Your task to perform on an android device: Open Youtube and go to "Your channel" Image 0: 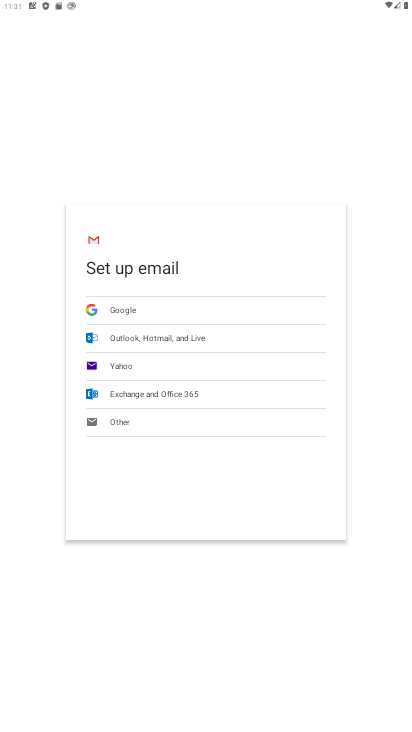
Step 0: press home button
Your task to perform on an android device: Open Youtube and go to "Your channel" Image 1: 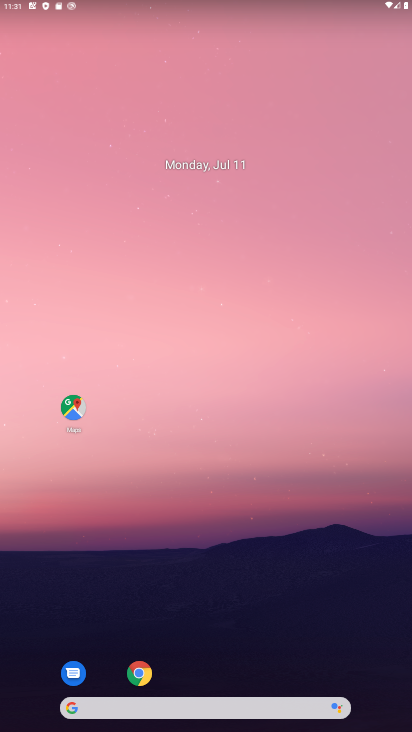
Step 1: drag from (225, 635) to (293, 29)
Your task to perform on an android device: Open Youtube and go to "Your channel" Image 2: 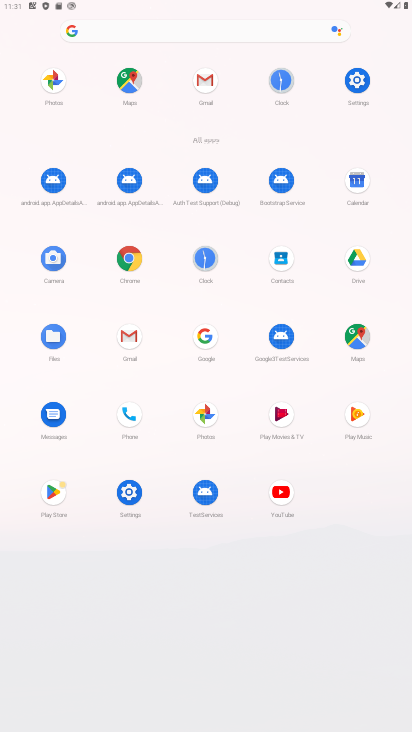
Step 2: click (276, 497)
Your task to perform on an android device: Open Youtube and go to "Your channel" Image 3: 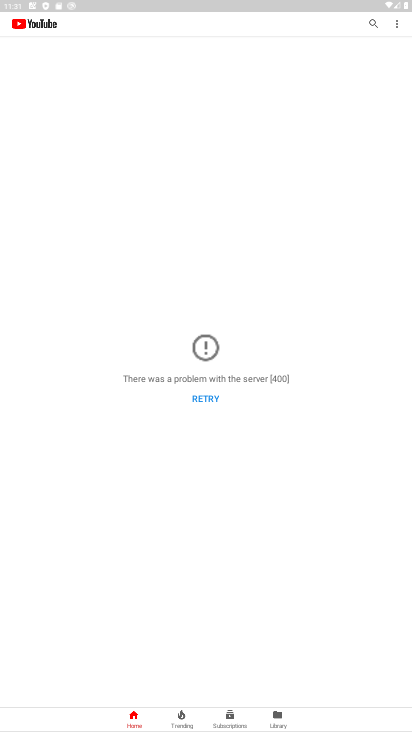
Step 3: click (278, 727)
Your task to perform on an android device: Open Youtube and go to "Your channel" Image 4: 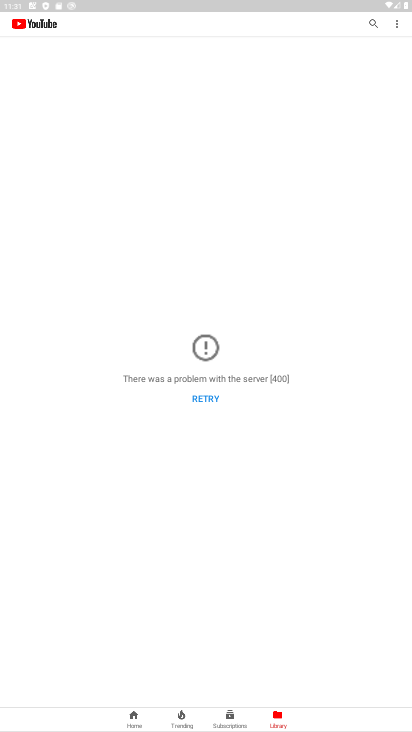
Step 4: task complete